Your task to perform on an android device: Open Maps and search for coffee Image 0: 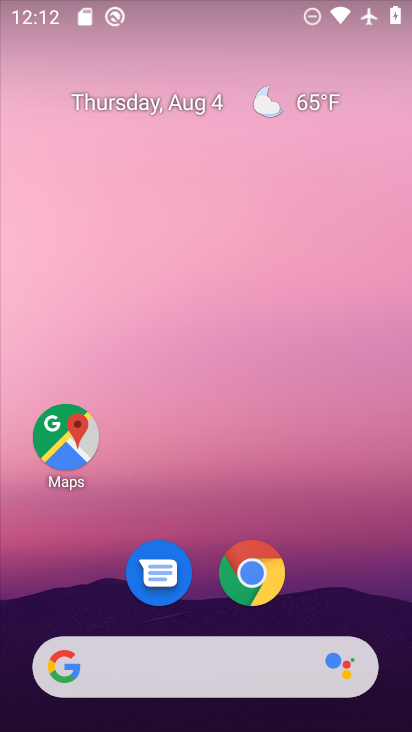
Step 0: drag from (347, 591) to (271, 182)
Your task to perform on an android device: Open Maps and search for coffee Image 1: 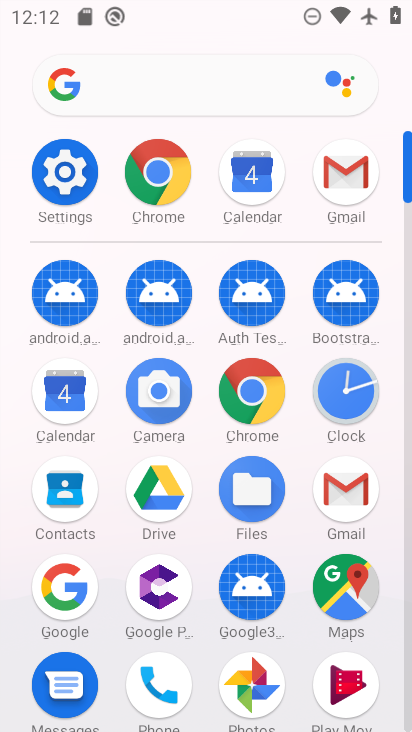
Step 1: click (363, 610)
Your task to perform on an android device: Open Maps and search for coffee Image 2: 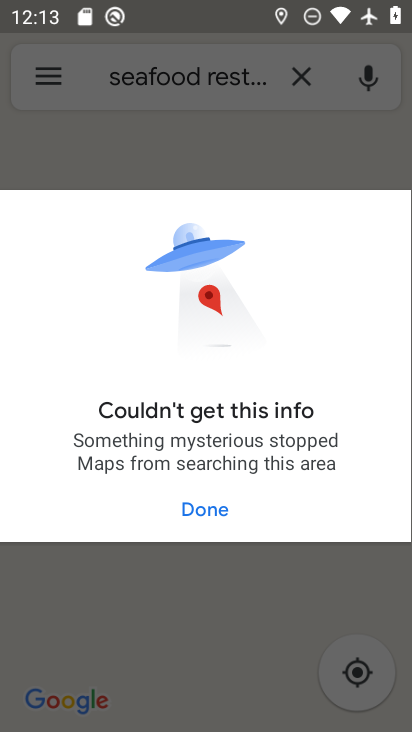
Step 2: click (183, 524)
Your task to perform on an android device: Open Maps and search for coffee Image 3: 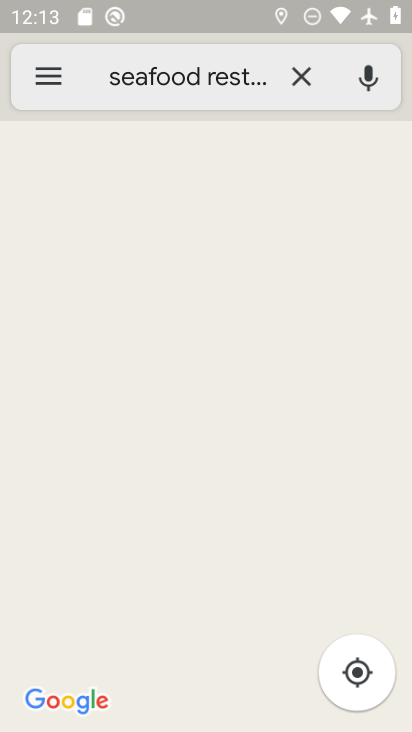
Step 3: click (256, 78)
Your task to perform on an android device: Open Maps and search for coffee Image 4: 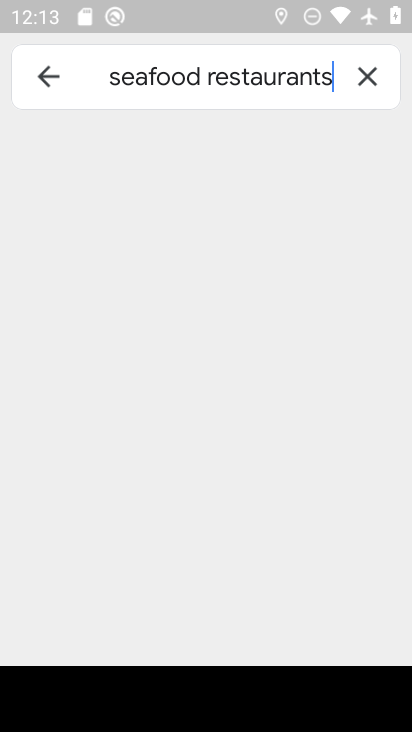
Step 4: click (372, 70)
Your task to perform on an android device: Open Maps and search for coffee Image 5: 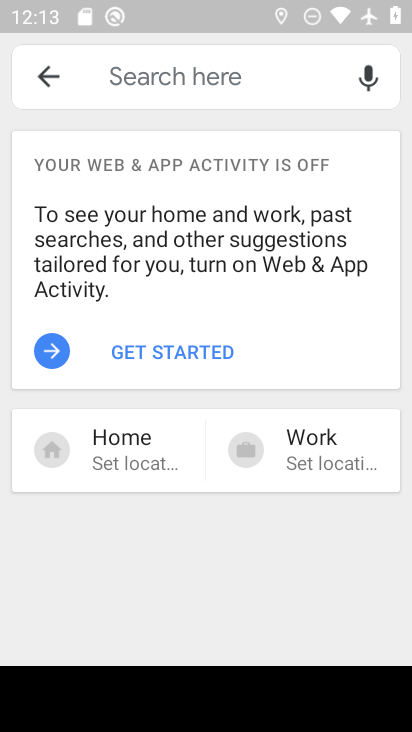
Step 5: type ""
Your task to perform on an android device: Open Maps and search for coffee Image 6: 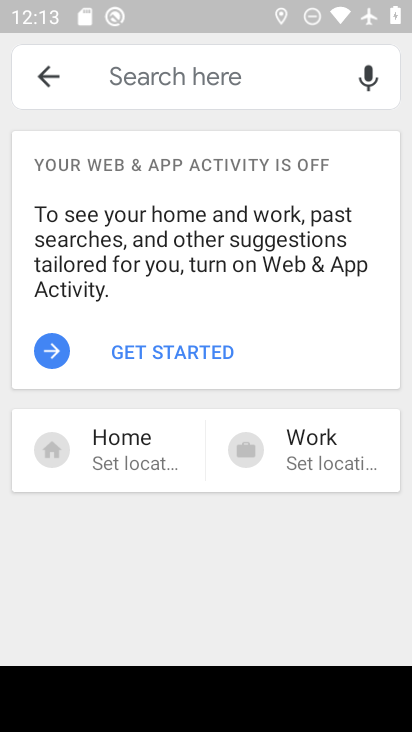
Step 6: type "coffee"
Your task to perform on an android device: Open Maps and search for coffee Image 7: 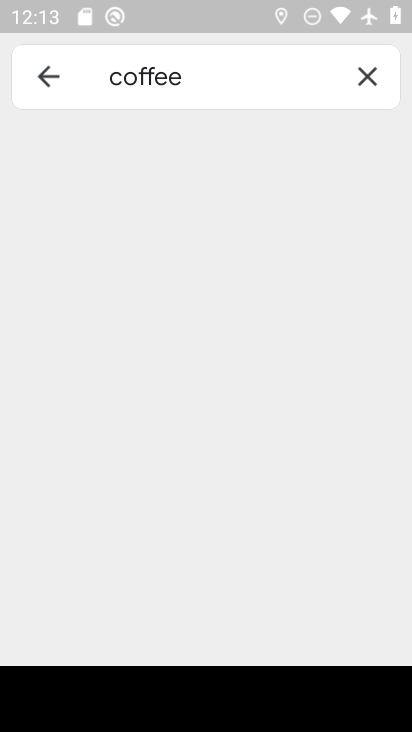
Step 7: press enter
Your task to perform on an android device: Open Maps and search for coffee Image 8: 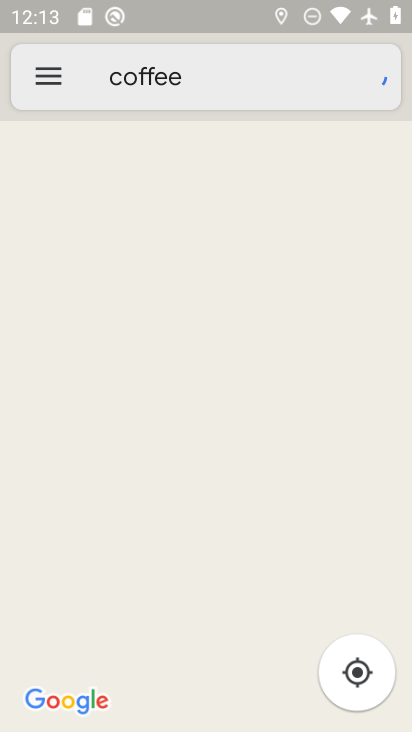
Step 8: task complete